Your task to perform on an android device: read, delete, or share a saved page in the chrome app Image 0: 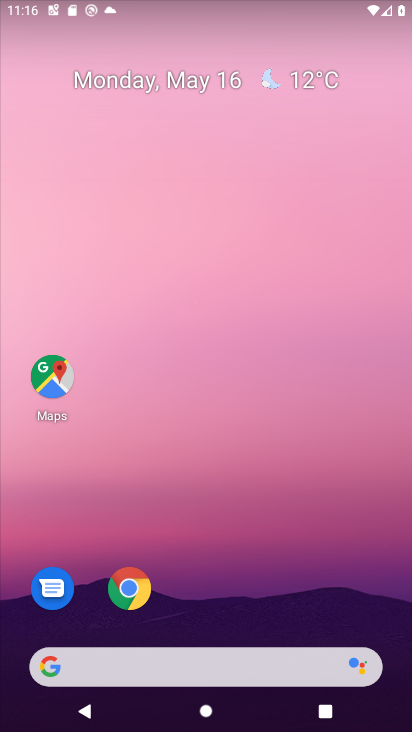
Step 0: drag from (213, 619) to (209, 30)
Your task to perform on an android device: read, delete, or share a saved page in the chrome app Image 1: 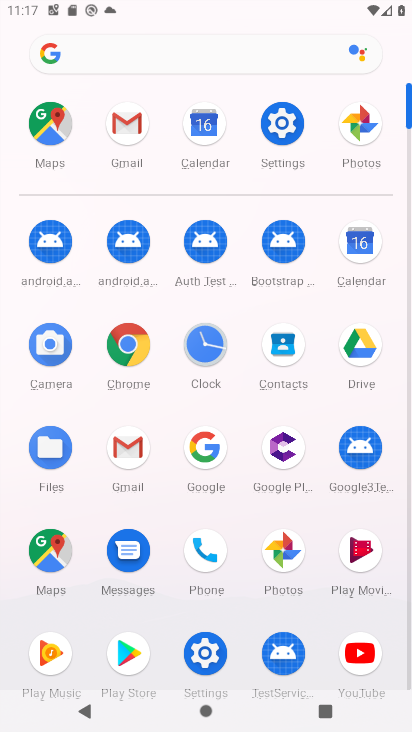
Step 1: drag from (239, 619) to (257, 178)
Your task to perform on an android device: read, delete, or share a saved page in the chrome app Image 2: 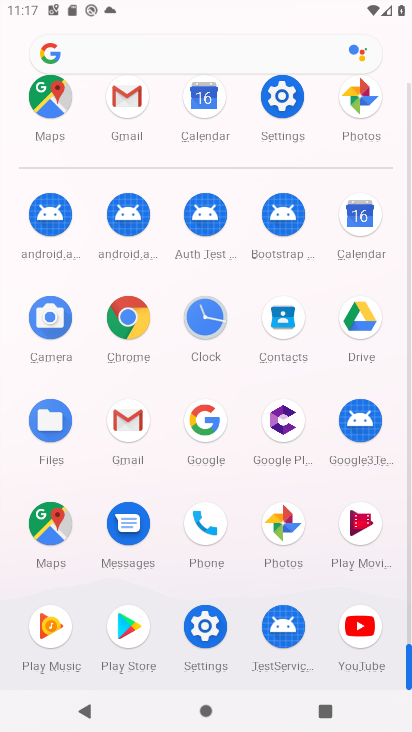
Step 2: click (128, 317)
Your task to perform on an android device: read, delete, or share a saved page in the chrome app Image 3: 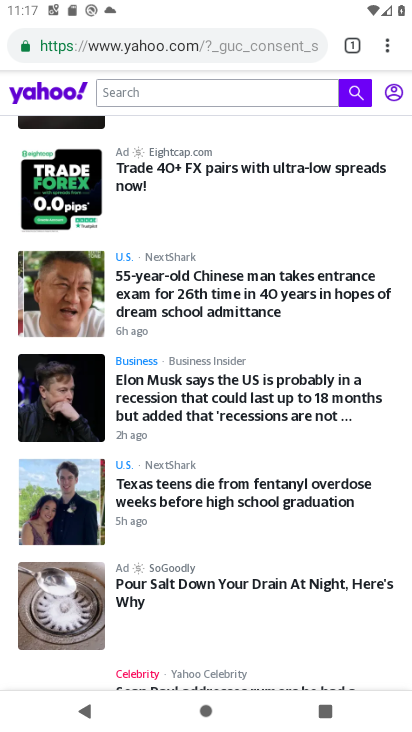
Step 3: click (387, 38)
Your task to perform on an android device: read, delete, or share a saved page in the chrome app Image 4: 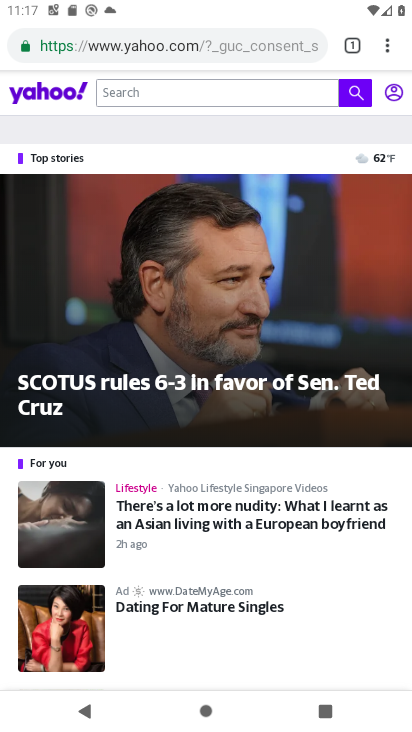
Step 4: click (387, 41)
Your task to perform on an android device: read, delete, or share a saved page in the chrome app Image 5: 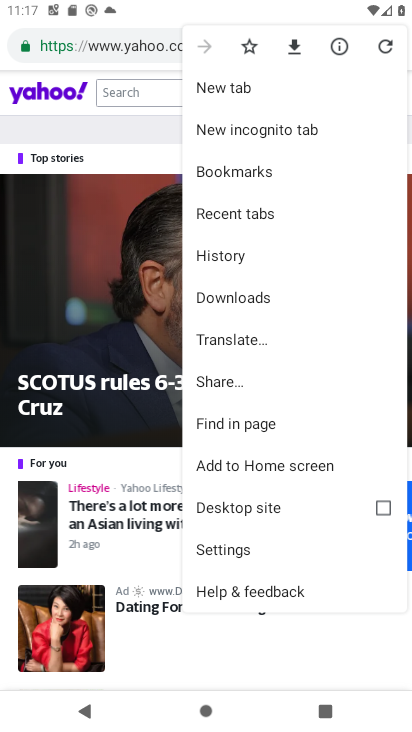
Step 5: click (282, 289)
Your task to perform on an android device: read, delete, or share a saved page in the chrome app Image 6: 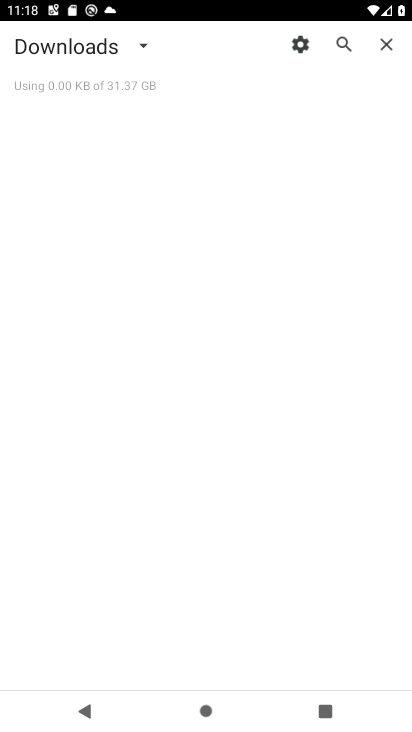
Step 6: task complete